Your task to perform on an android device: move a message to another label in the gmail app Image 0: 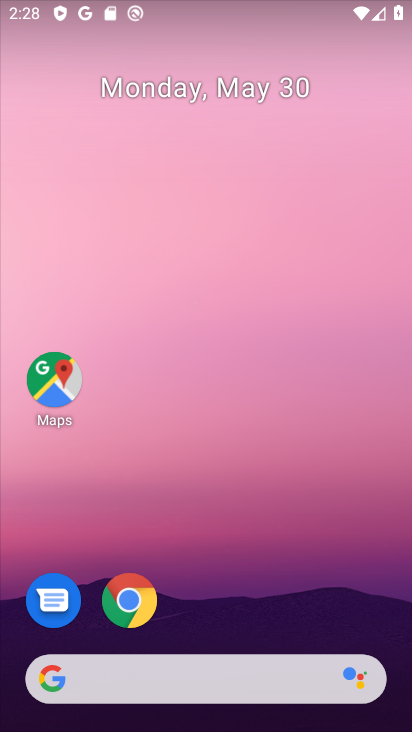
Step 0: drag from (215, 650) to (328, 147)
Your task to perform on an android device: move a message to another label in the gmail app Image 1: 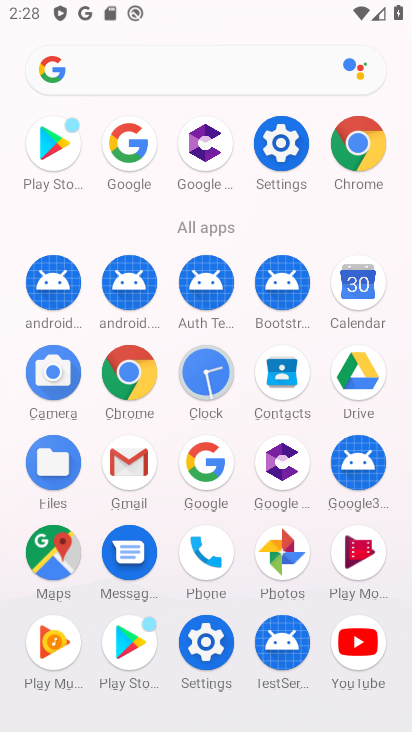
Step 1: click (117, 456)
Your task to perform on an android device: move a message to another label in the gmail app Image 2: 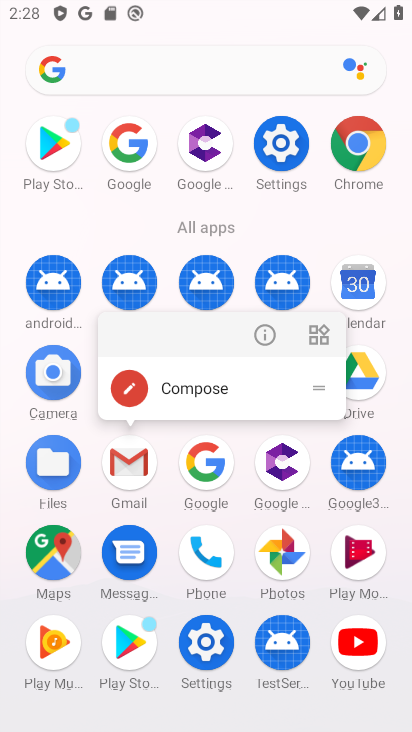
Step 2: click (131, 484)
Your task to perform on an android device: move a message to another label in the gmail app Image 3: 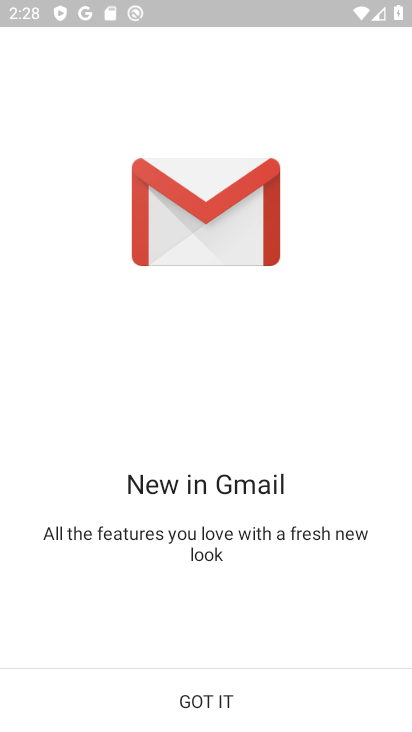
Step 3: click (286, 683)
Your task to perform on an android device: move a message to another label in the gmail app Image 4: 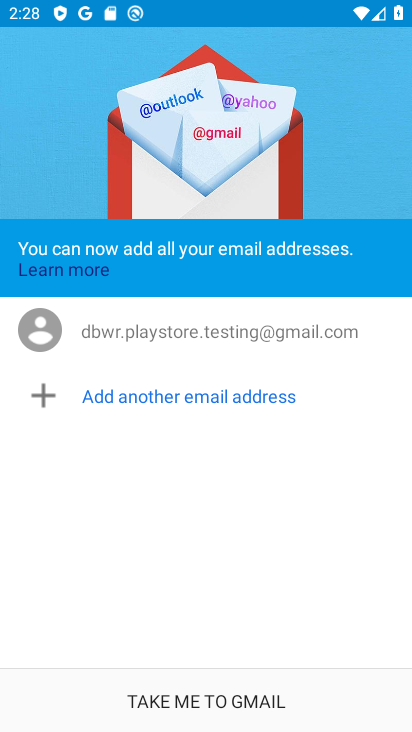
Step 4: click (286, 683)
Your task to perform on an android device: move a message to another label in the gmail app Image 5: 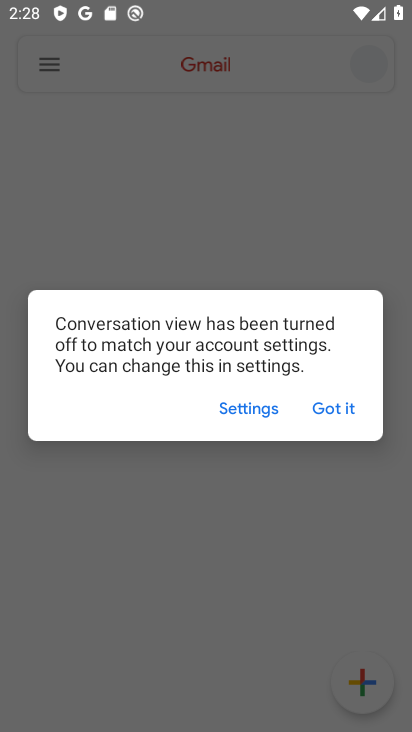
Step 5: click (351, 414)
Your task to perform on an android device: move a message to another label in the gmail app Image 6: 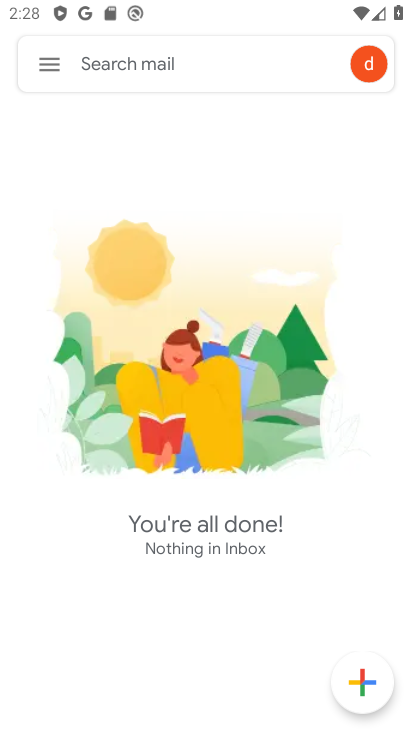
Step 6: click (43, 68)
Your task to perform on an android device: move a message to another label in the gmail app Image 7: 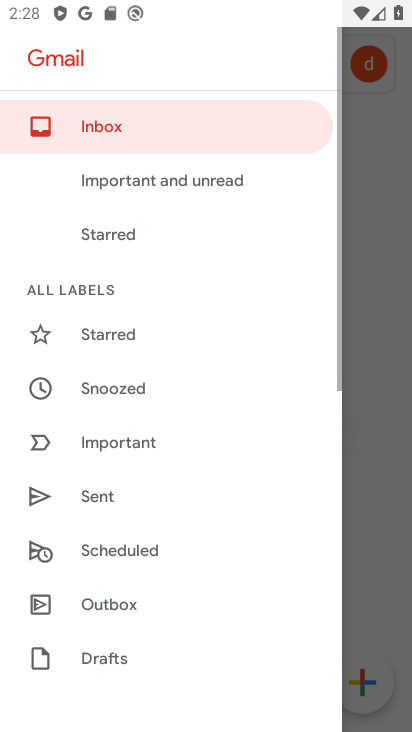
Step 7: drag from (157, 571) to (208, 348)
Your task to perform on an android device: move a message to another label in the gmail app Image 8: 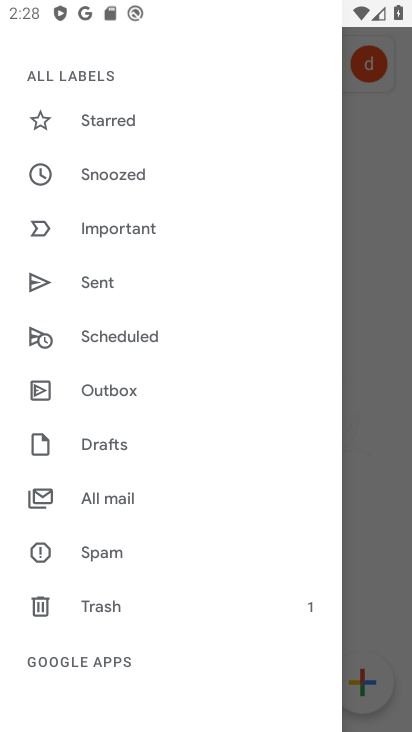
Step 8: click (155, 501)
Your task to perform on an android device: move a message to another label in the gmail app Image 9: 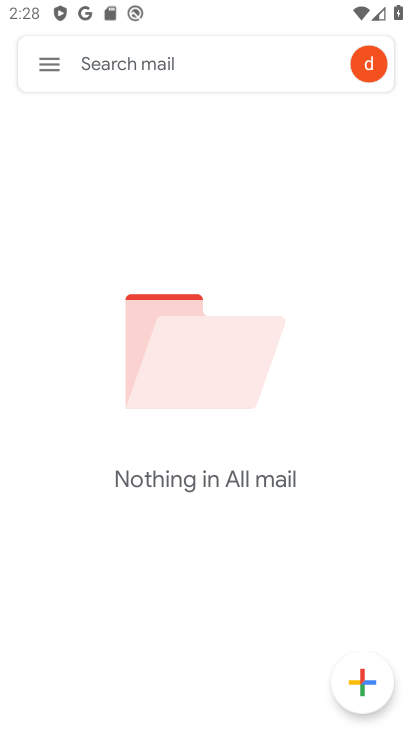
Step 9: task complete